Your task to perform on an android device: Play the new Demi Lovato video on YouTube Image 0: 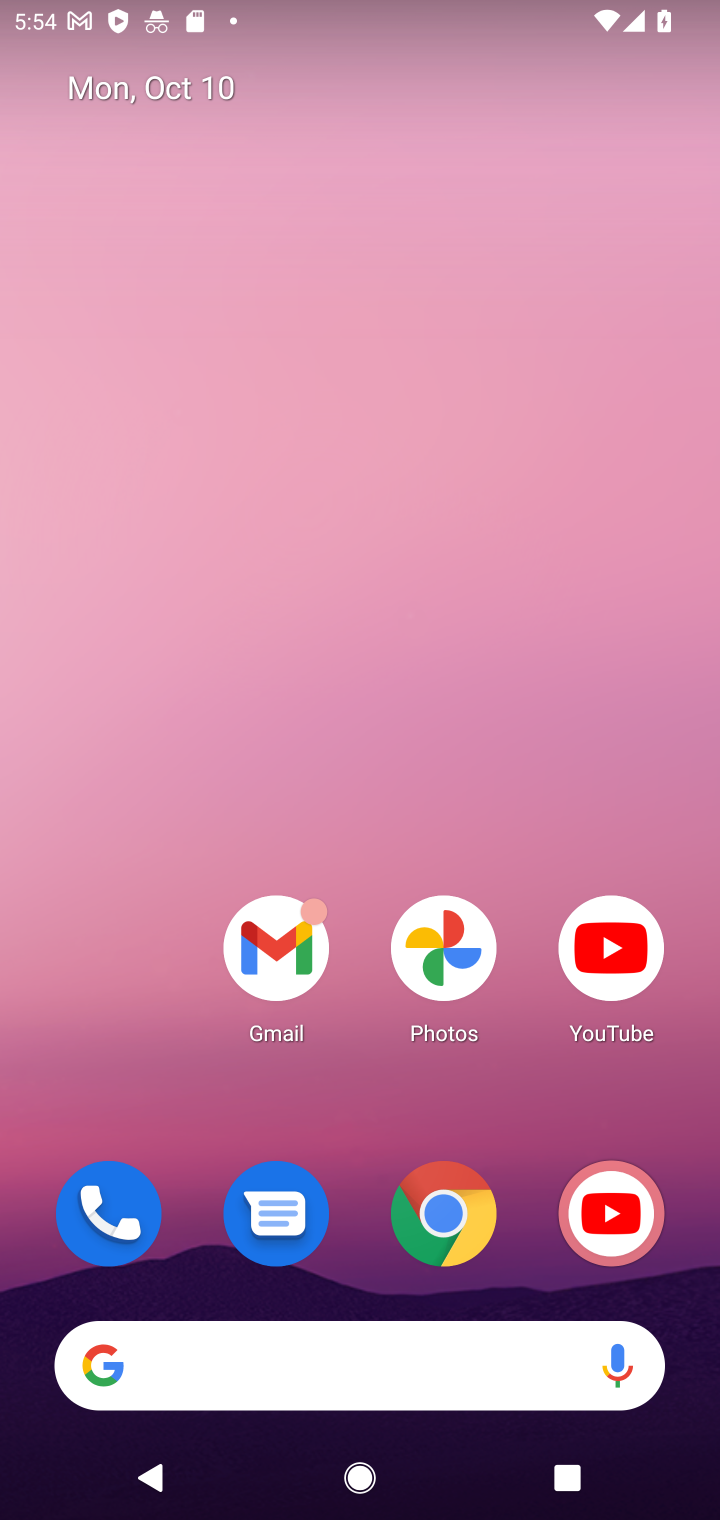
Step 0: click (180, 484)
Your task to perform on an android device: Play the new Demi Lovato video on YouTube Image 1: 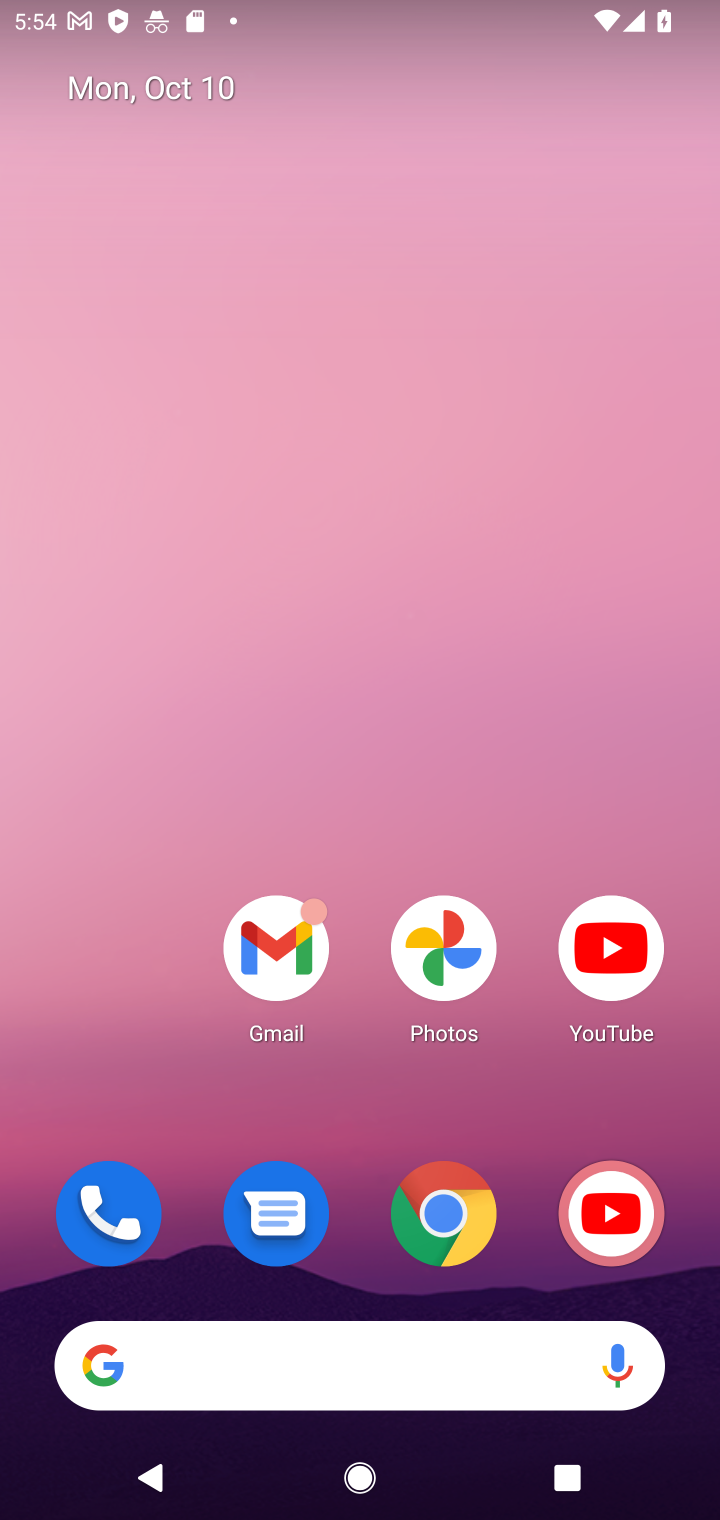
Step 1: click (621, 1216)
Your task to perform on an android device: Play the new Demi Lovato video on YouTube Image 2: 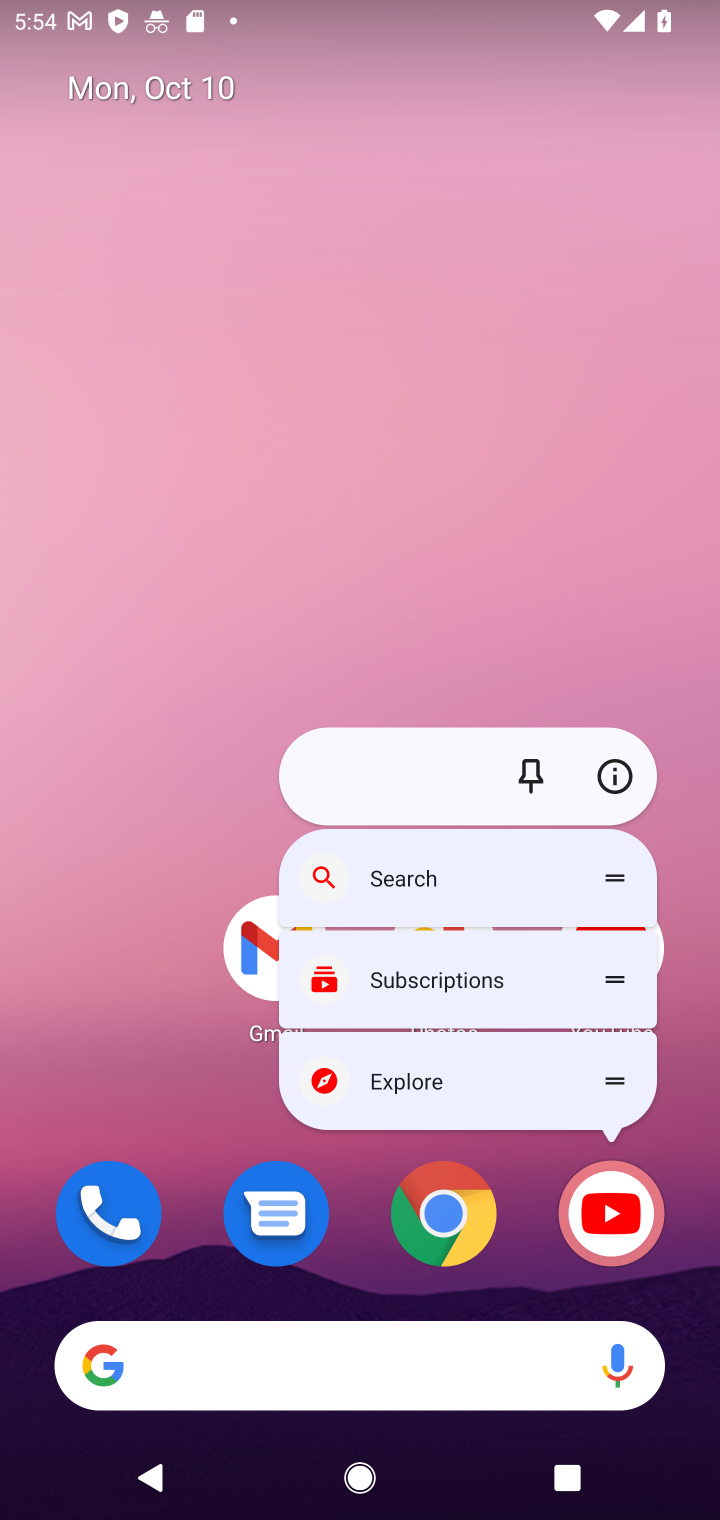
Step 2: click (621, 1216)
Your task to perform on an android device: Play the new Demi Lovato video on YouTube Image 3: 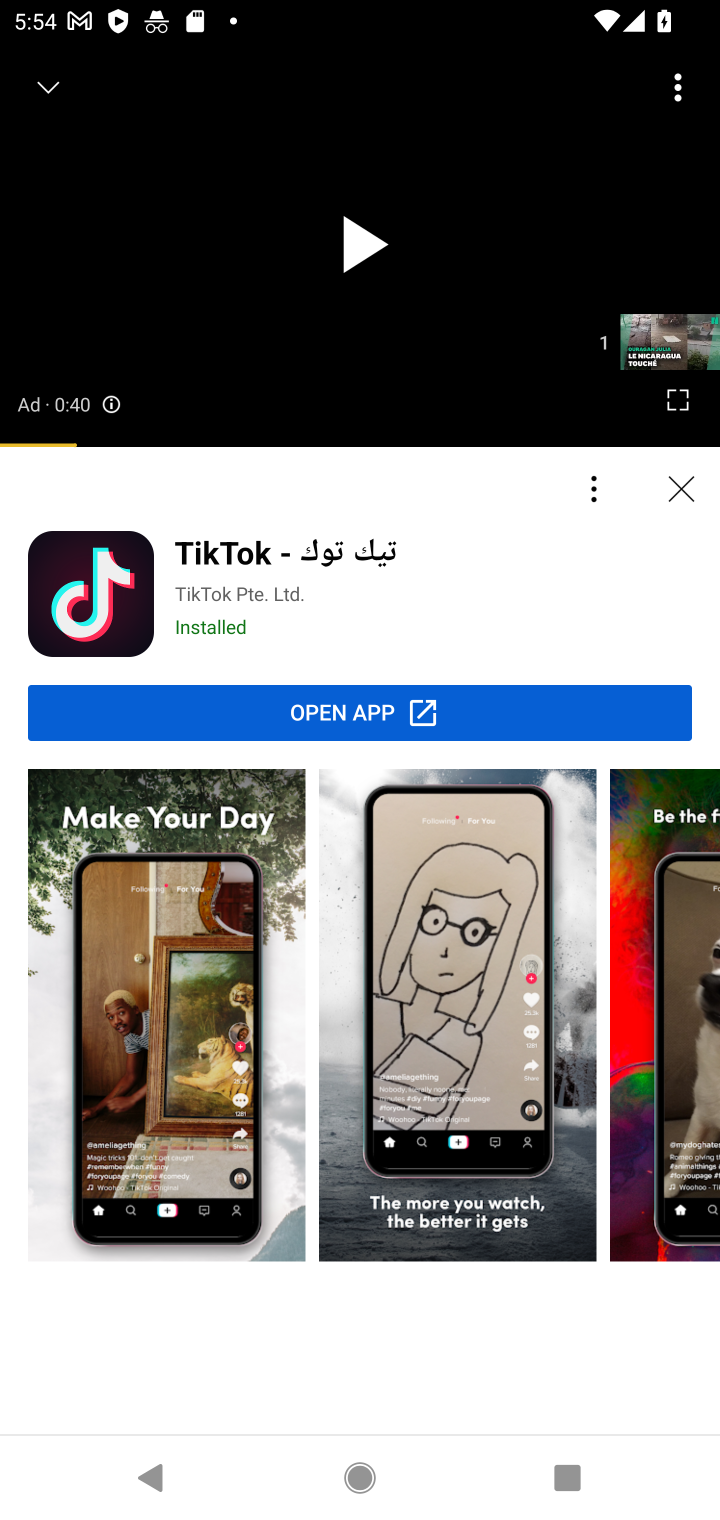
Step 3: click (45, 99)
Your task to perform on an android device: Play the new Demi Lovato video on YouTube Image 4: 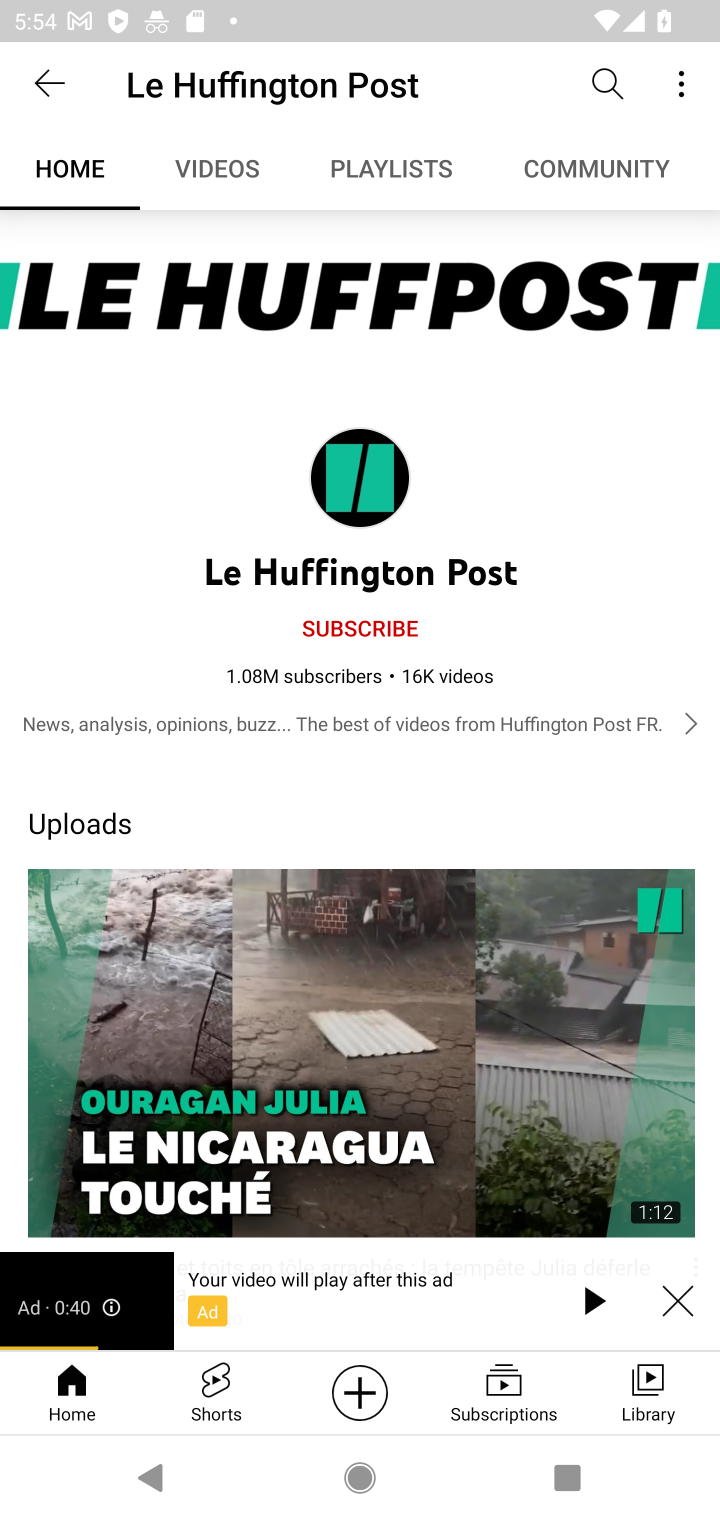
Step 4: click (602, 82)
Your task to perform on an android device: Play the new Demi Lovato video on YouTube Image 5: 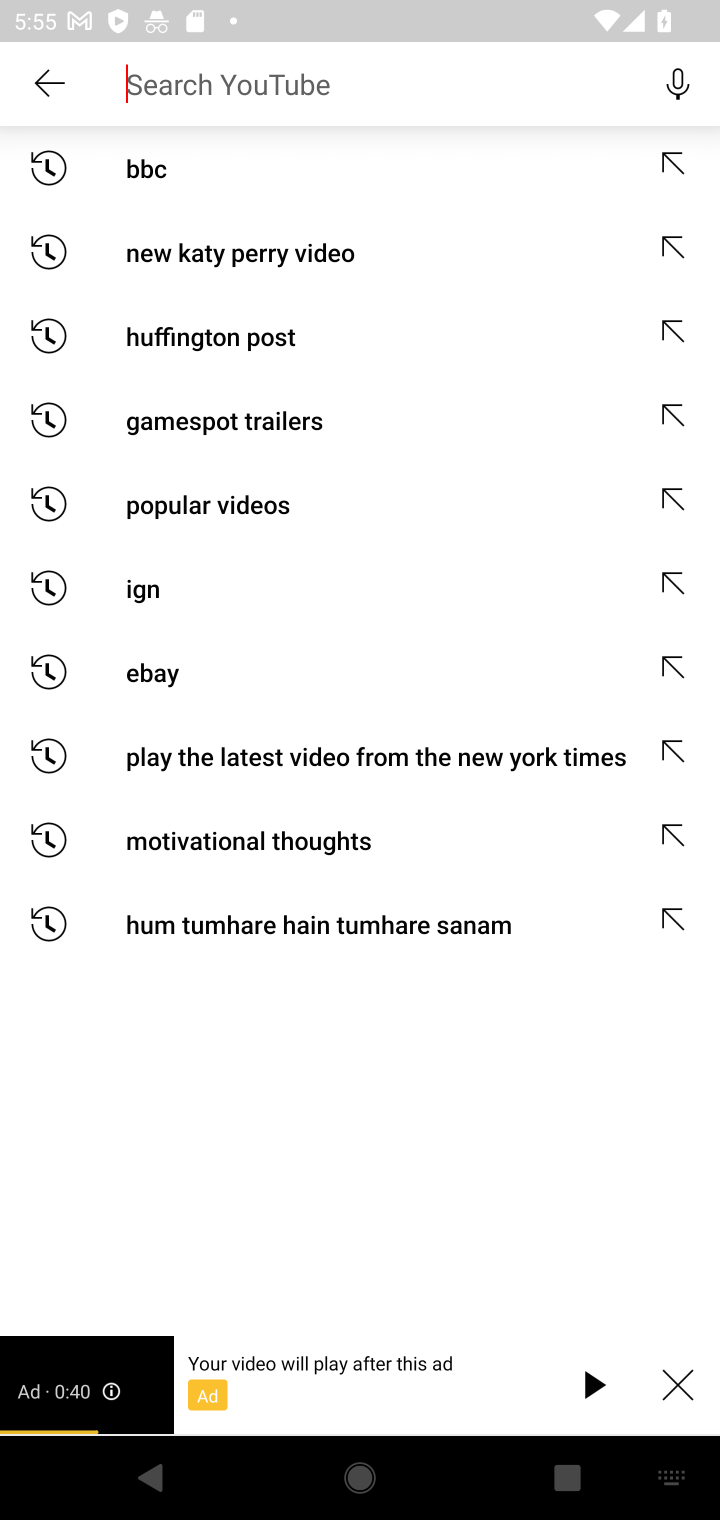
Step 5: click (338, 89)
Your task to perform on an android device: Play the new Demi Lovato video on YouTube Image 6: 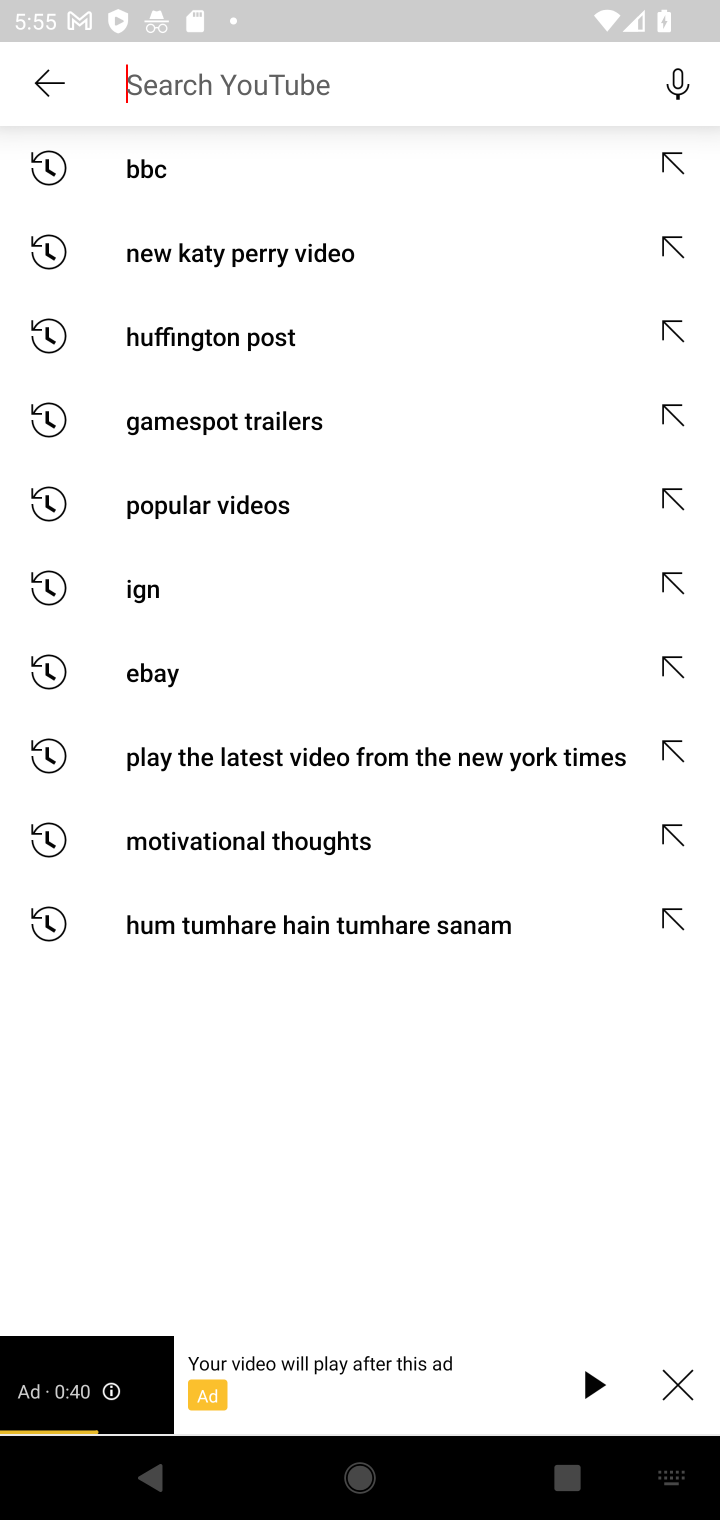
Step 6: type "new Demi Lovato "
Your task to perform on an android device: Play the new Demi Lovato video on YouTube Image 7: 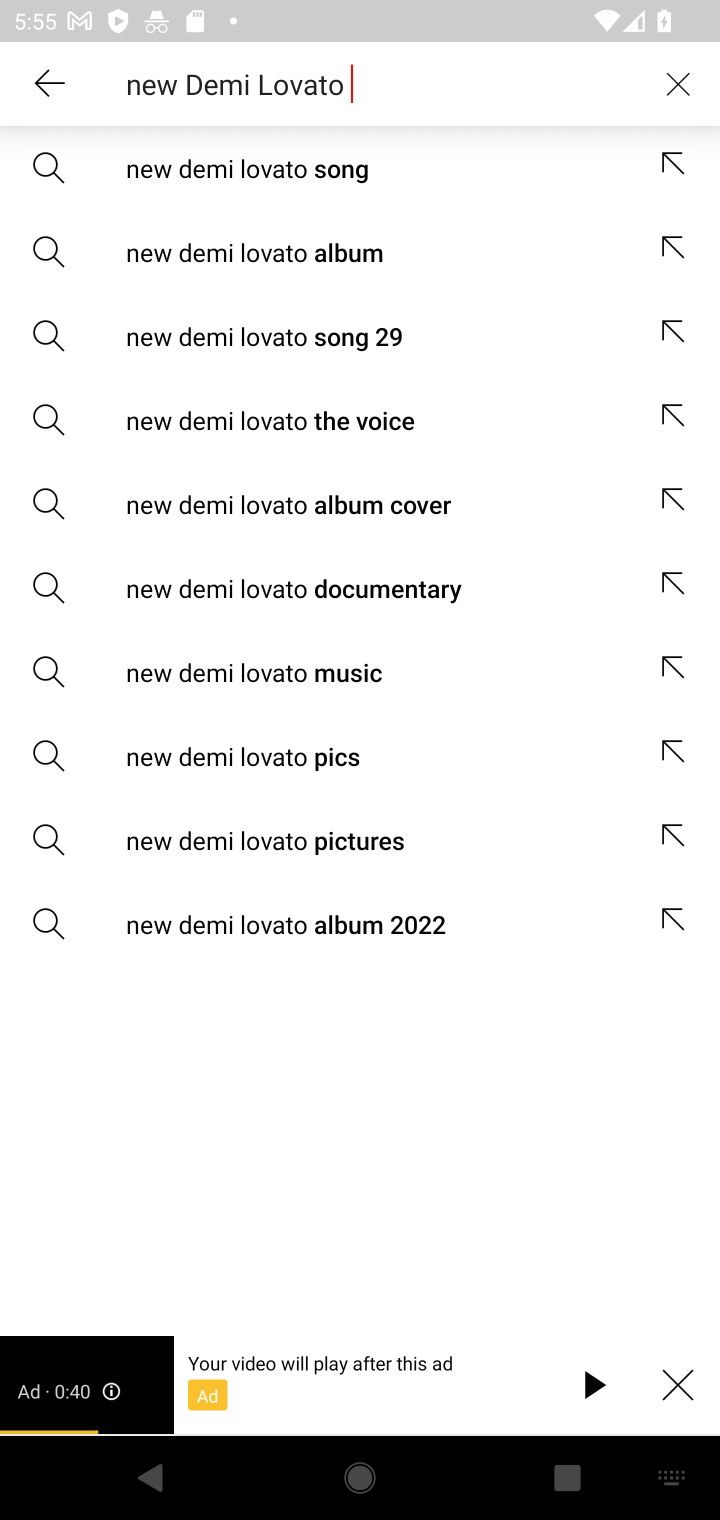
Step 7: click (368, 154)
Your task to perform on an android device: Play the new Demi Lovato video on YouTube Image 8: 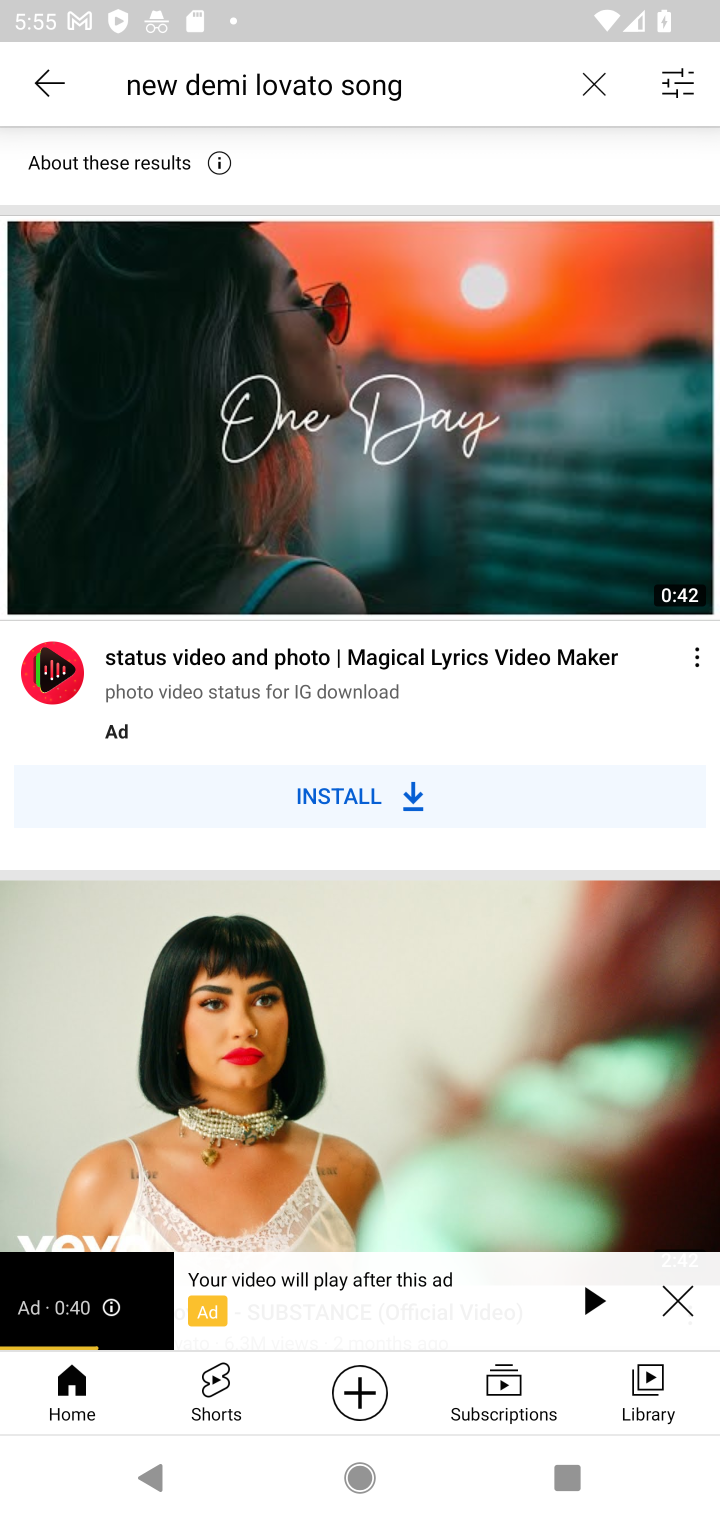
Step 8: drag from (274, 1081) to (378, 359)
Your task to perform on an android device: Play the new Demi Lovato video on YouTube Image 9: 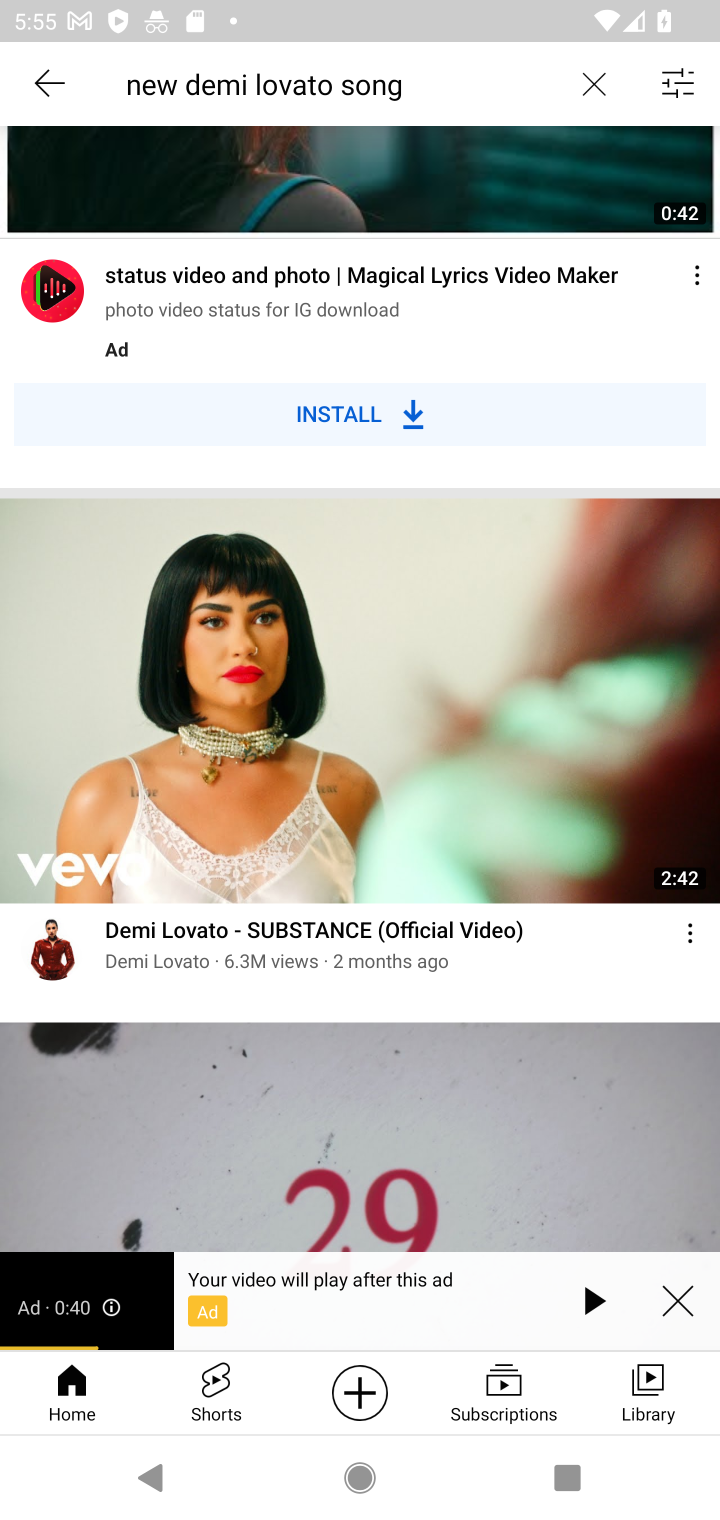
Step 9: click (443, 647)
Your task to perform on an android device: Play the new Demi Lovato video on YouTube Image 10: 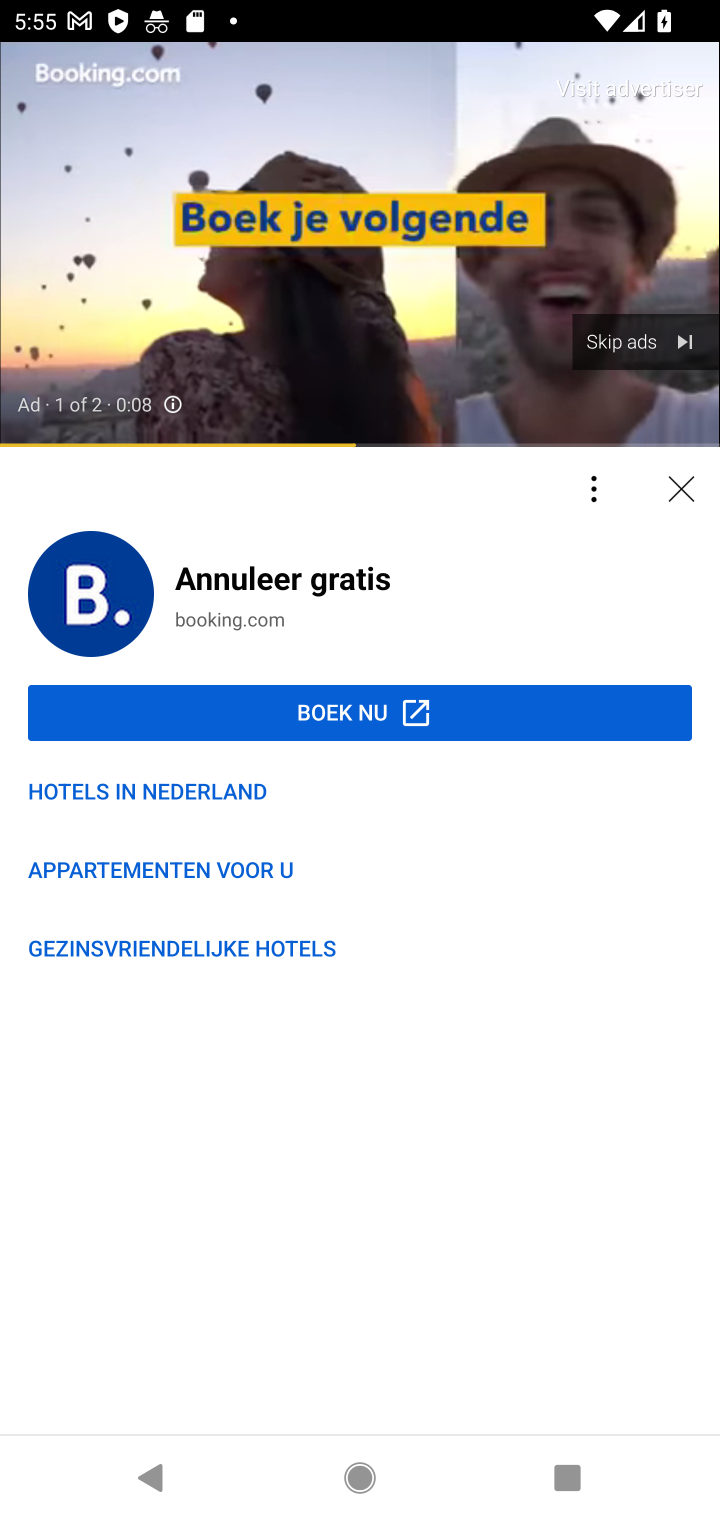
Step 10: click (611, 346)
Your task to perform on an android device: Play the new Demi Lovato video on YouTube Image 11: 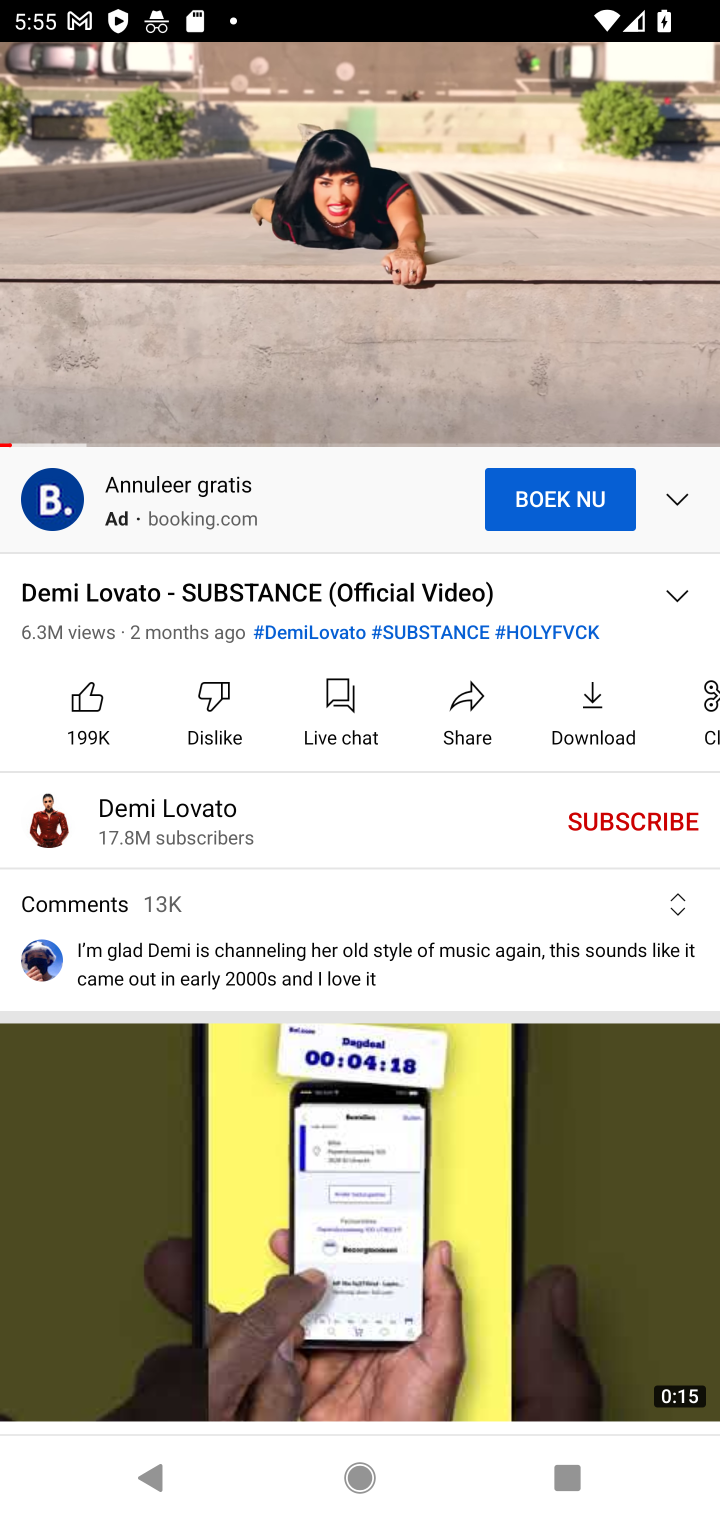
Step 11: task complete